Your task to perform on an android device: toggle data saver in the chrome app Image 0: 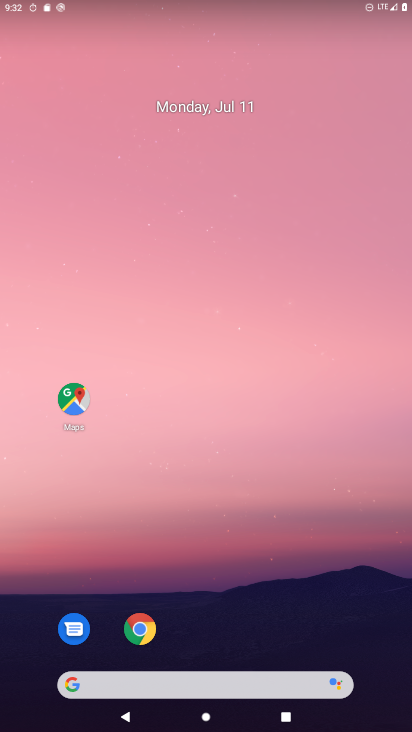
Step 0: click (145, 624)
Your task to perform on an android device: toggle data saver in the chrome app Image 1: 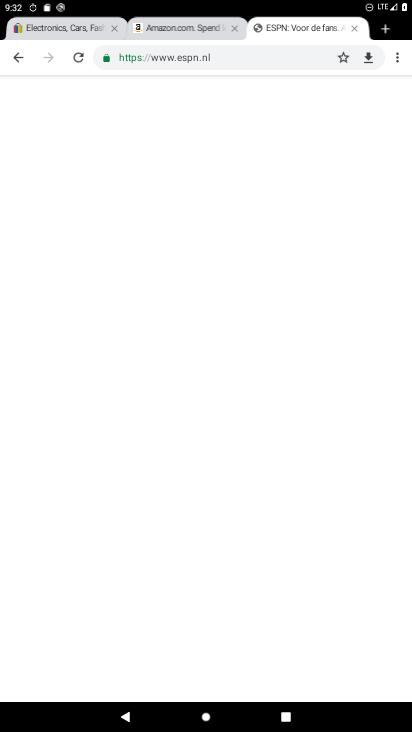
Step 1: click (396, 54)
Your task to perform on an android device: toggle data saver in the chrome app Image 2: 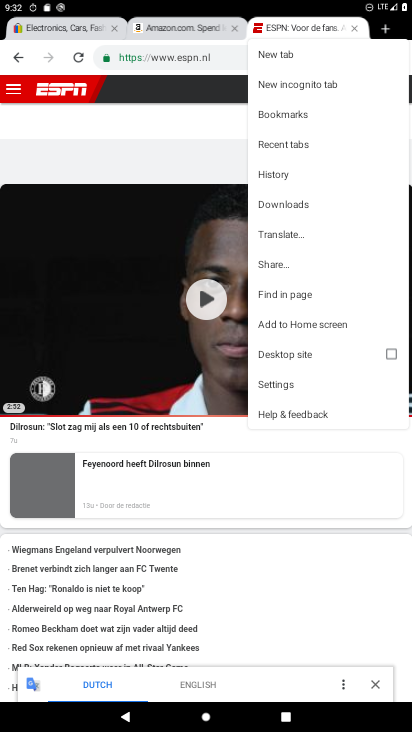
Step 2: click (281, 381)
Your task to perform on an android device: toggle data saver in the chrome app Image 3: 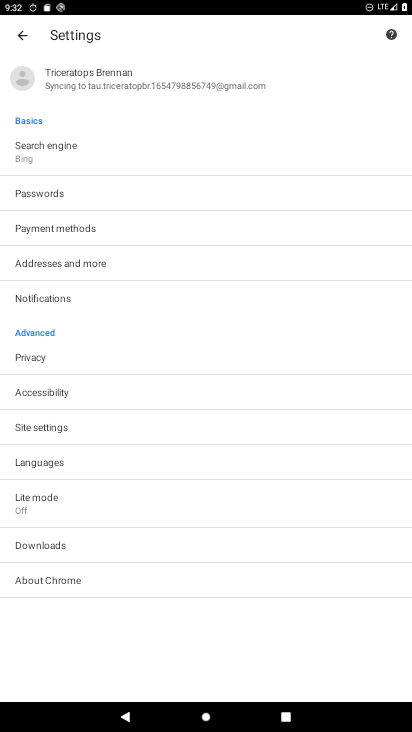
Step 3: click (59, 493)
Your task to perform on an android device: toggle data saver in the chrome app Image 4: 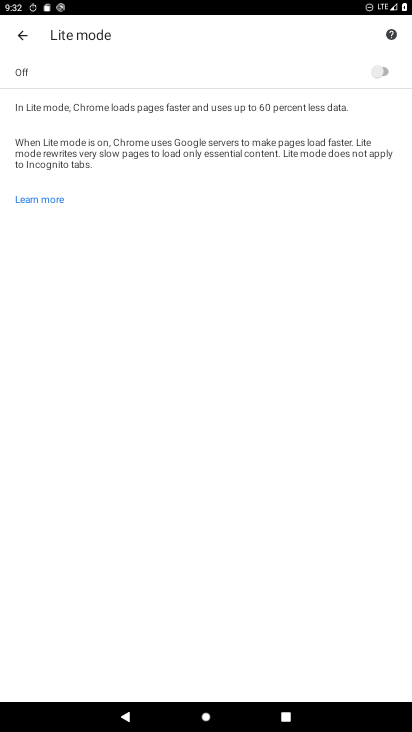
Step 4: click (378, 79)
Your task to perform on an android device: toggle data saver in the chrome app Image 5: 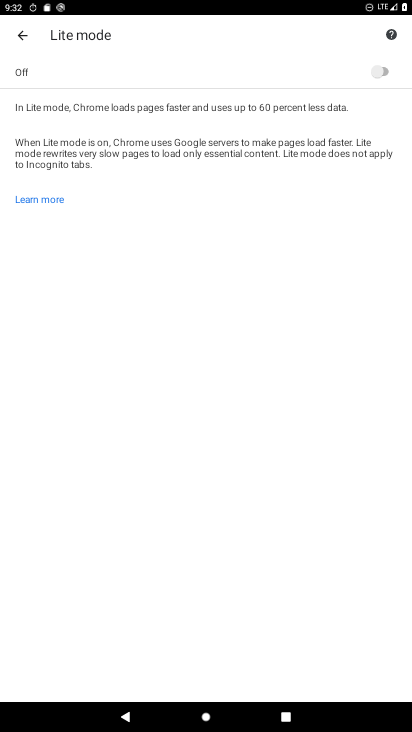
Step 5: click (378, 79)
Your task to perform on an android device: toggle data saver in the chrome app Image 6: 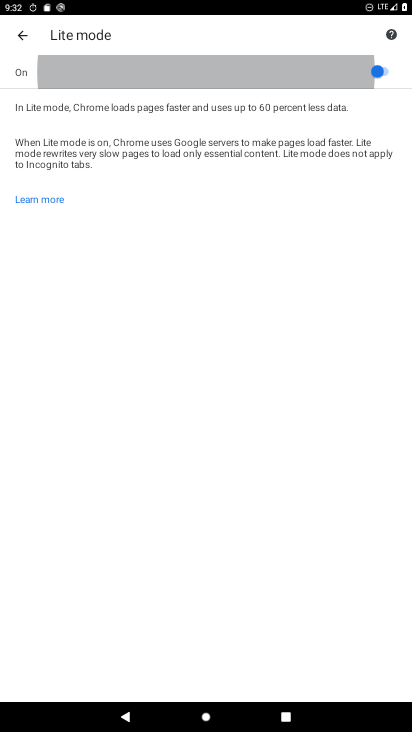
Step 6: click (378, 79)
Your task to perform on an android device: toggle data saver in the chrome app Image 7: 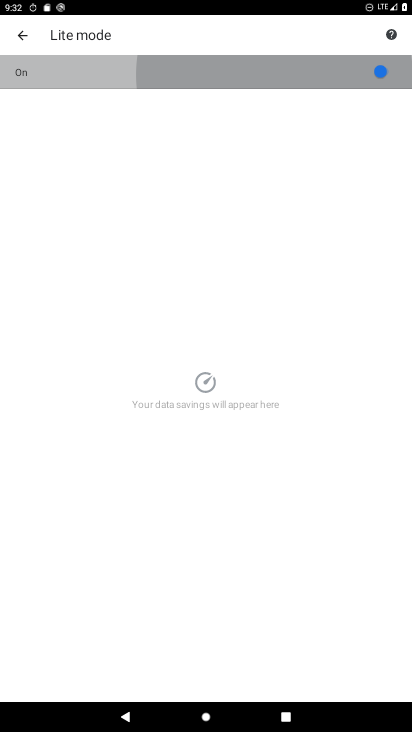
Step 7: click (378, 79)
Your task to perform on an android device: toggle data saver in the chrome app Image 8: 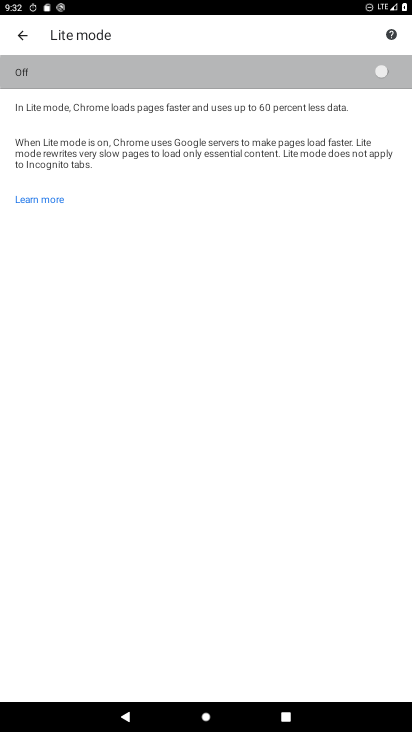
Step 8: click (378, 79)
Your task to perform on an android device: toggle data saver in the chrome app Image 9: 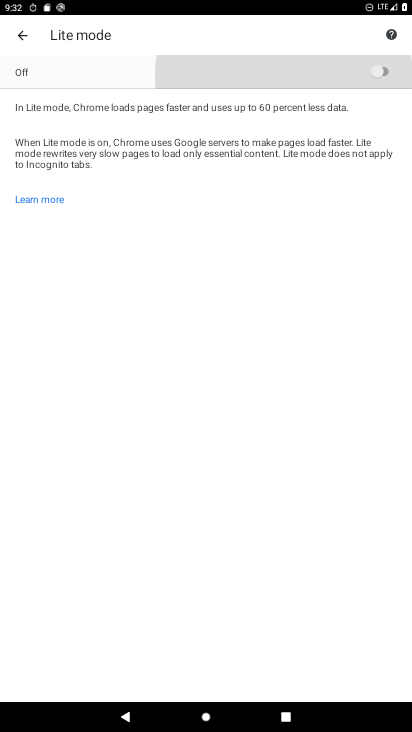
Step 9: click (378, 79)
Your task to perform on an android device: toggle data saver in the chrome app Image 10: 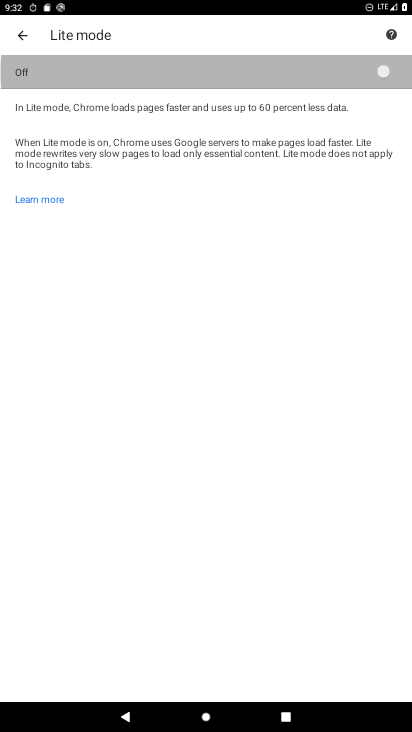
Step 10: click (378, 79)
Your task to perform on an android device: toggle data saver in the chrome app Image 11: 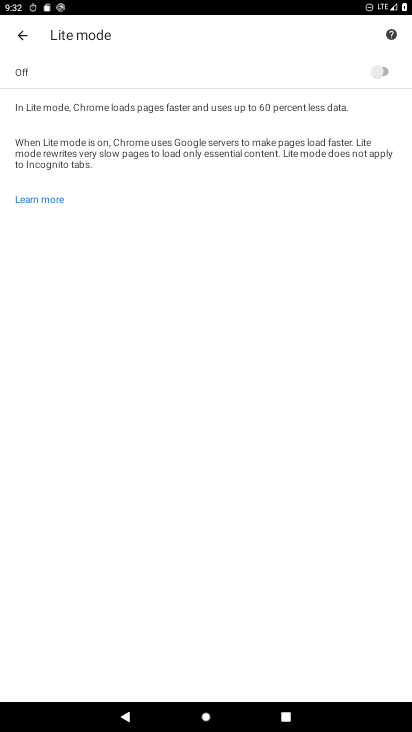
Step 11: click (378, 79)
Your task to perform on an android device: toggle data saver in the chrome app Image 12: 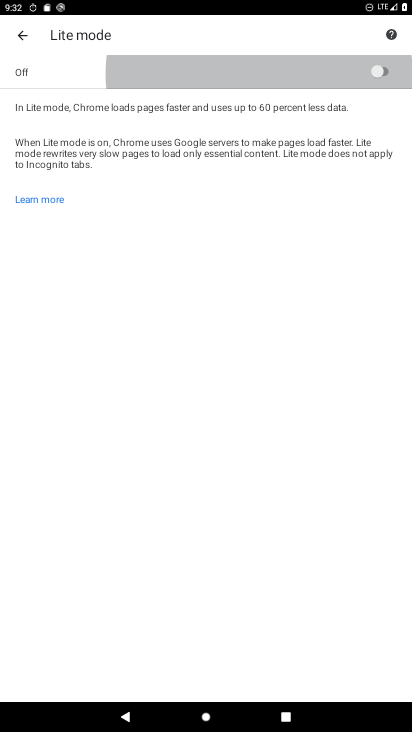
Step 12: click (378, 79)
Your task to perform on an android device: toggle data saver in the chrome app Image 13: 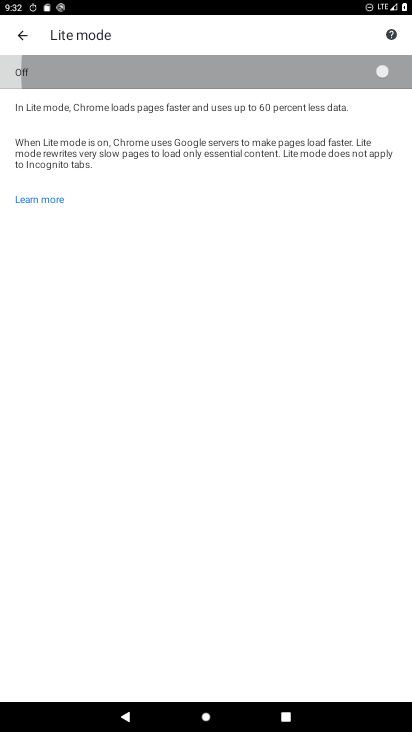
Step 13: click (378, 79)
Your task to perform on an android device: toggle data saver in the chrome app Image 14: 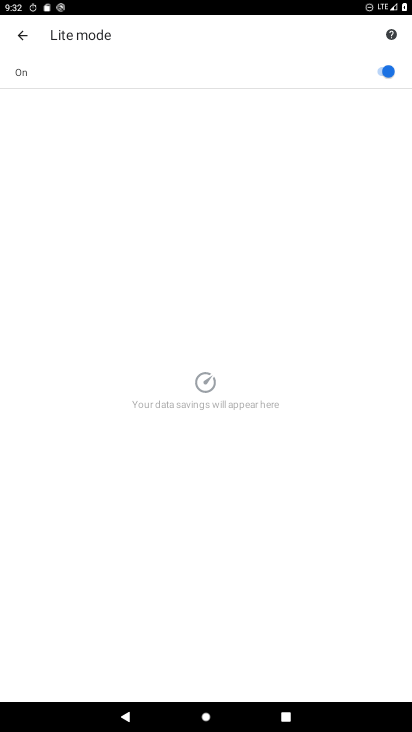
Step 14: task complete